Your task to perform on an android device: What's on my calendar today? Image 0: 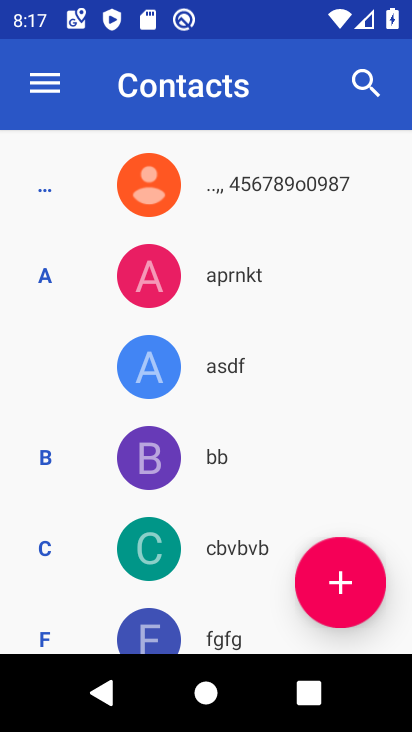
Step 0: press home button
Your task to perform on an android device: What's on my calendar today? Image 1: 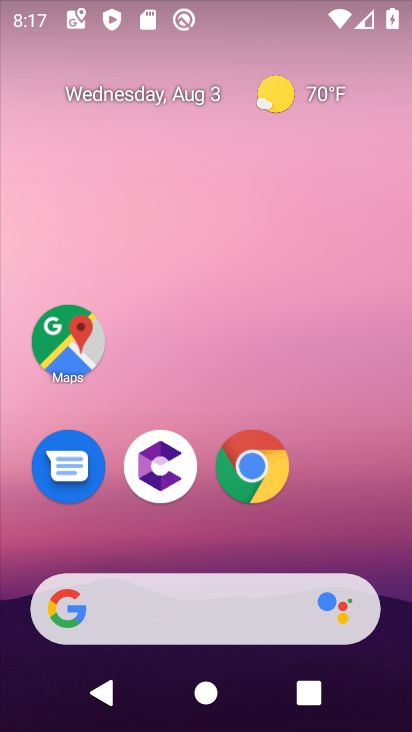
Step 1: drag from (357, 465) to (236, 135)
Your task to perform on an android device: What's on my calendar today? Image 2: 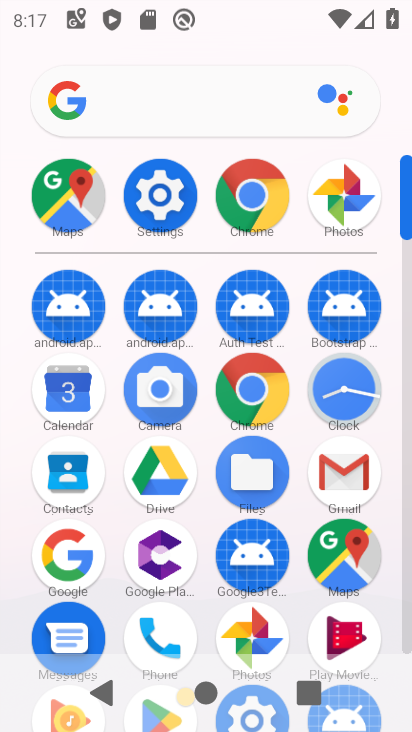
Step 2: click (68, 395)
Your task to perform on an android device: What's on my calendar today? Image 3: 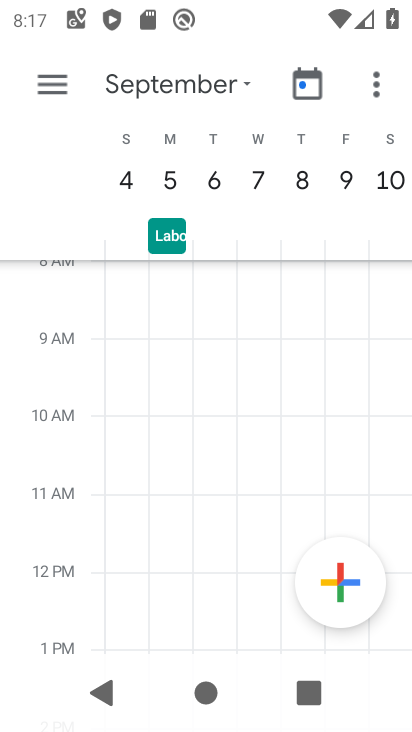
Step 3: click (192, 91)
Your task to perform on an android device: What's on my calendar today? Image 4: 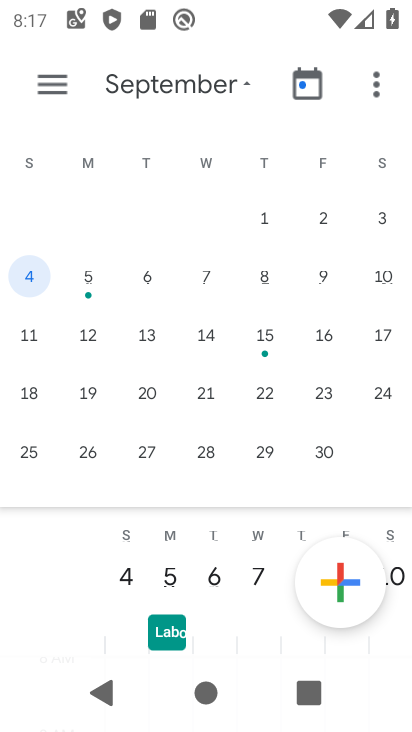
Step 4: drag from (35, 376) to (301, 342)
Your task to perform on an android device: What's on my calendar today? Image 5: 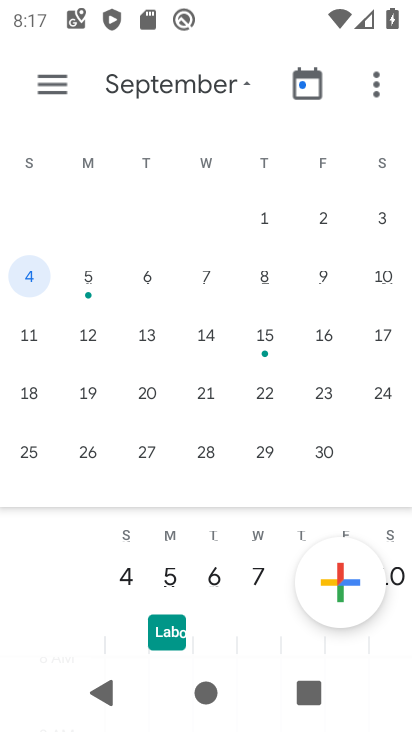
Step 5: drag from (33, 344) to (105, 343)
Your task to perform on an android device: What's on my calendar today? Image 6: 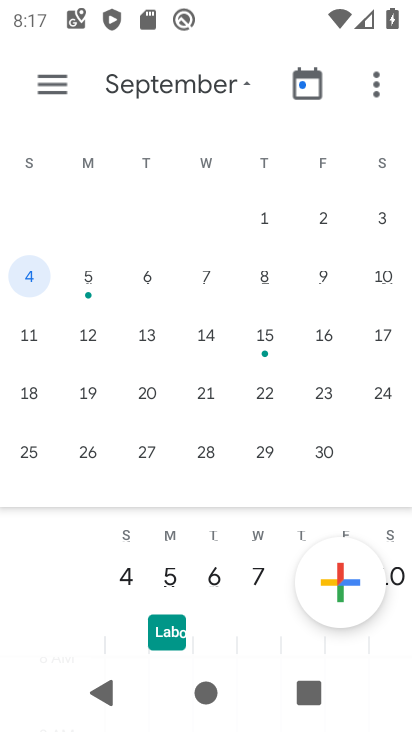
Step 6: drag from (29, 347) to (239, 350)
Your task to perform on an android device: What's on my calendar today? Image 7: 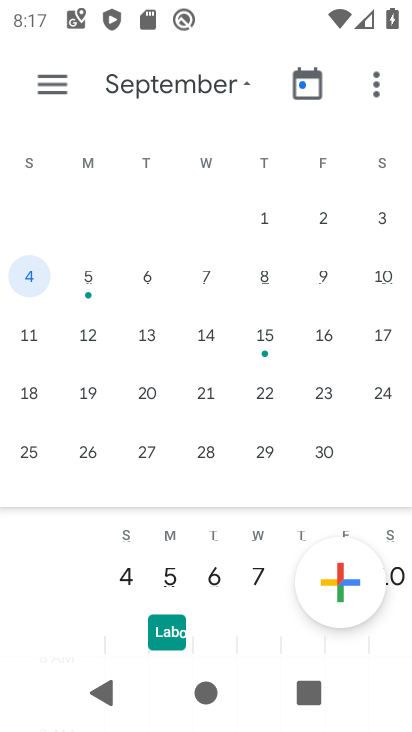
Step 7: drag from (120, 358) to (411, 357)
Your task to perform on an android device: What's on my calendar today? Image 8: 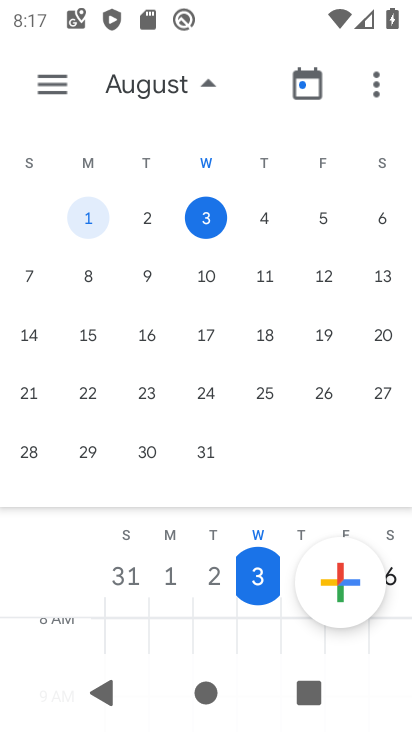
Step 8: click (210, 226)
Your task to perform on an android device: What's on my calendar today? Image 9: 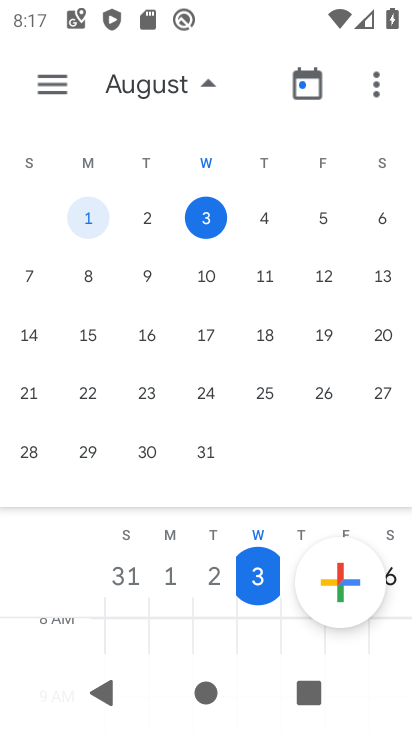
Step 9: click (198, 218)
Your task to perform on an android device: What's on my calendar today? Image 10: 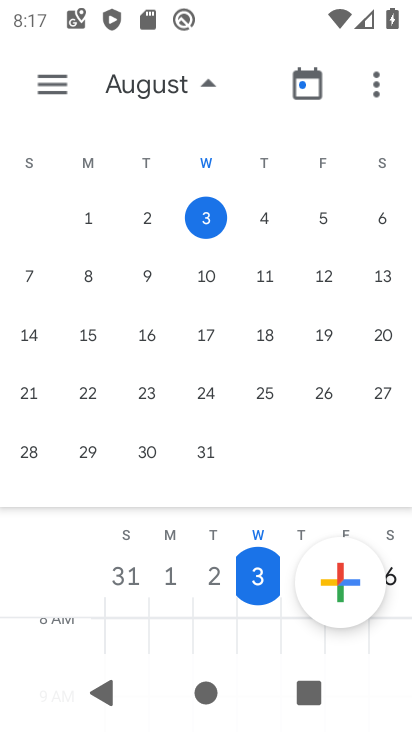
Step 10: click (268, 577)
Your task to perform on an android device: What's on my calendar today? Image 11: 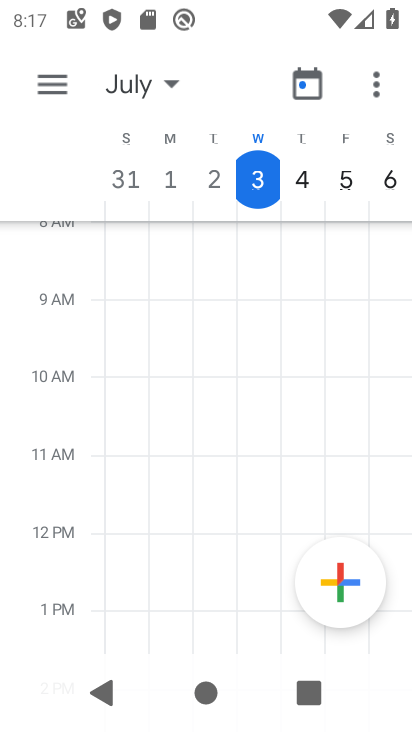
Step 11: click (258, 187)
Your task to perform on an android device: What's on my calendar today? Image 12: 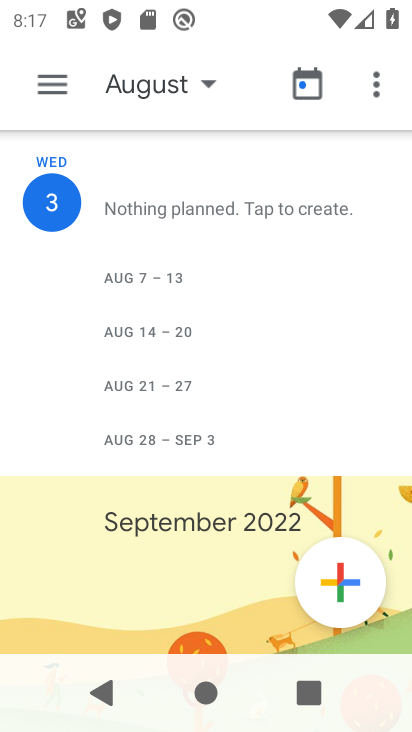
Step 12: task complete